Your task to perform on an android device: turn pop-ups off in chrome Image 0: 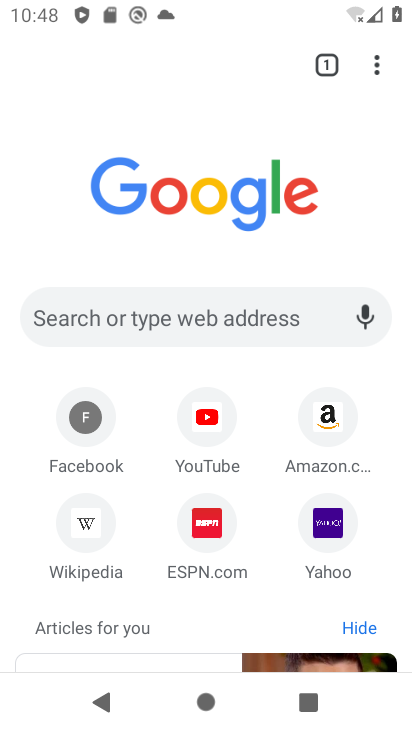
Step 0: click (377, 59)
Your task to perform on an android device: turn pop-ups off in chrome Image 1: 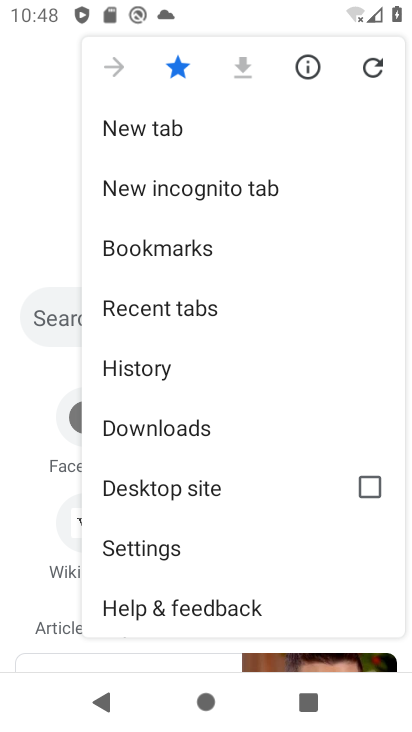
Step 1: click (172, 555)
Your task to perform on an android device: turn pop-ups off in chrome Image 2: 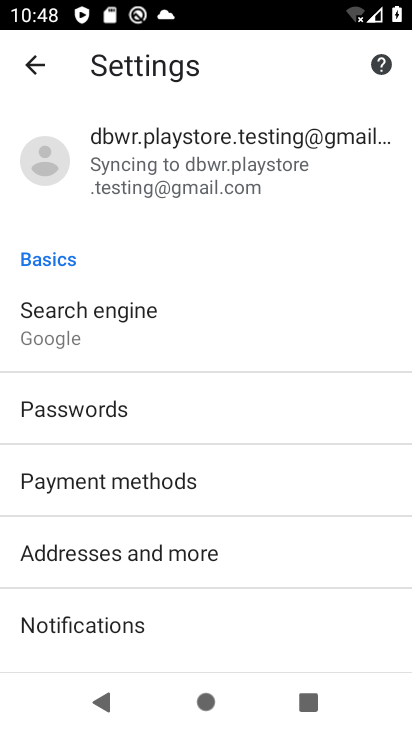
Step 2: drag from (172, 555) to (336, 65)
Your task to perform on an android device: turn pop-ups off in chrome Image 3: 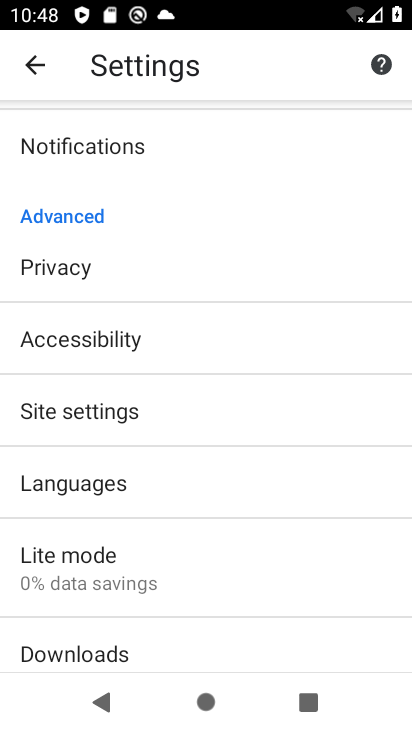
Step 3: click (150, 424)
Your task to perform on an android device: turn pop-ups off in chrome Image 4: 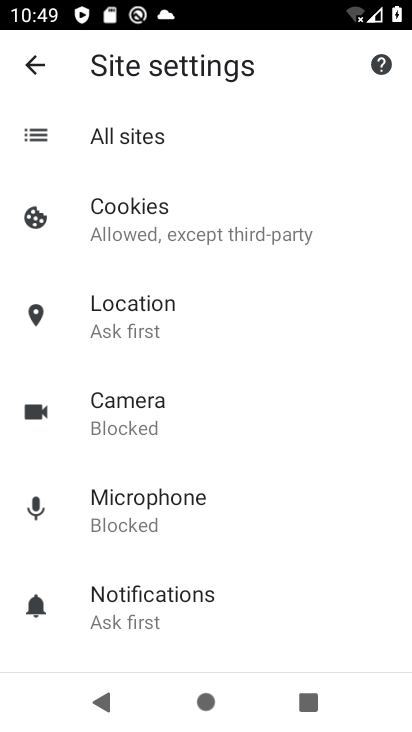
Step 4: drag from (242, 616) to (259, 239)
Your task to perform on an android device: turn pop-ups off in chrome Image 5: 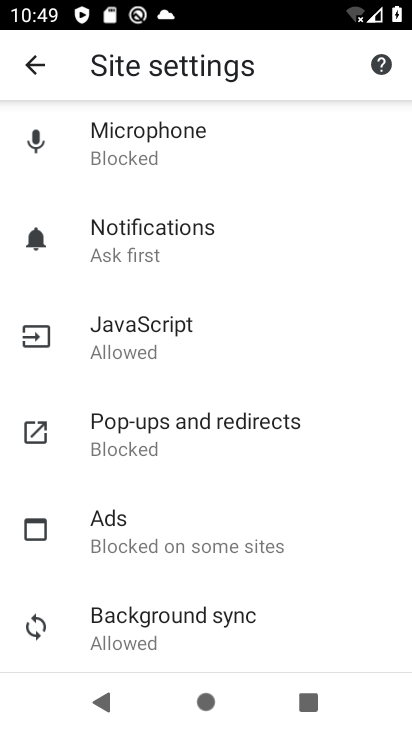
Step 5: click (201, 426)
Your task to perform on an android device: turn pop-ups off in chrome Image 6: 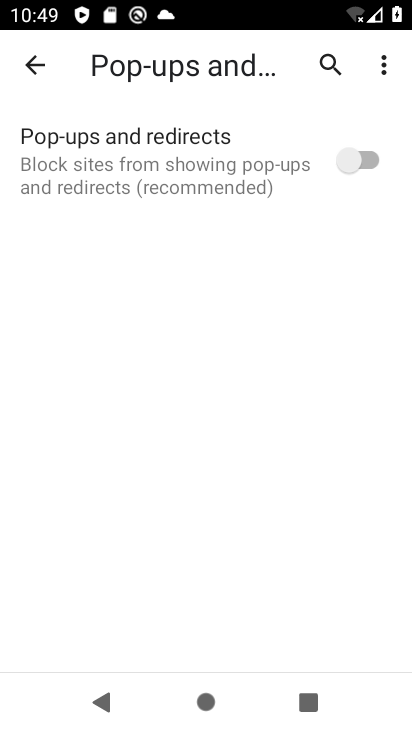
Step 6: click (370, 165)
Your task to perform on an android device: turn pop-ups off in chrome Image 7: 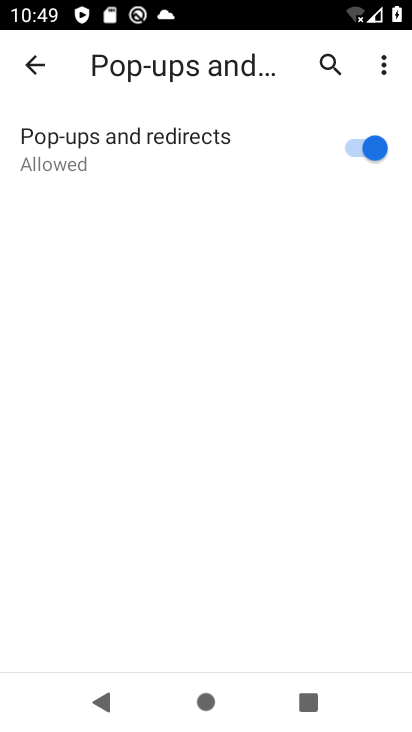
Step 7: click (370, 165)
Your task to perform on an android device: turn pop-ups off in chrome Image 8: 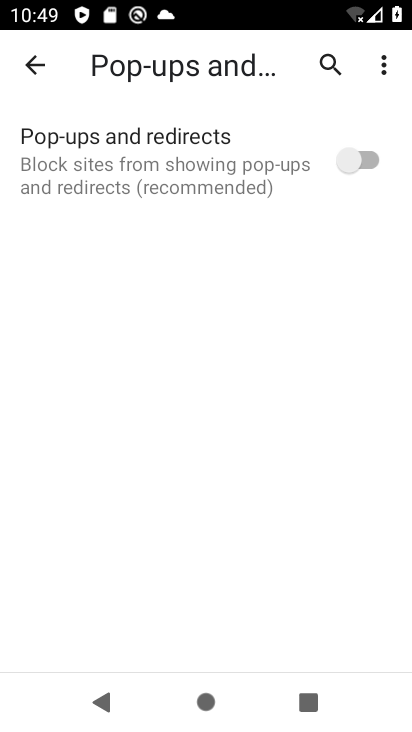
Step 8: task complete